Your task to perform on an android device: open chrome and create a bookmark for the current page Image 0: 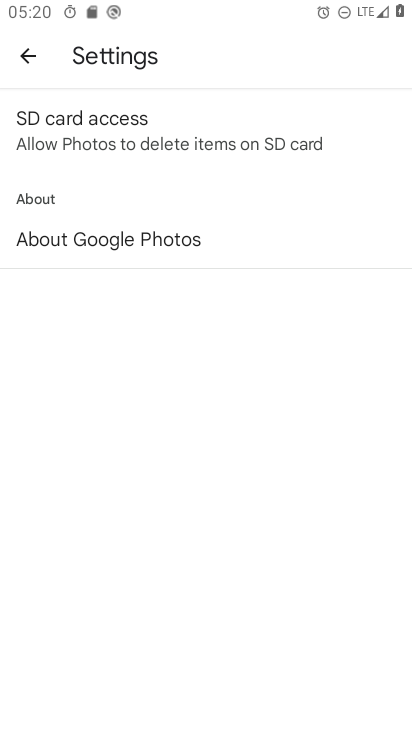
Step 0: press home button
Your task to perform on an android device: open chrome and create a bookmark for the current page Image 1: 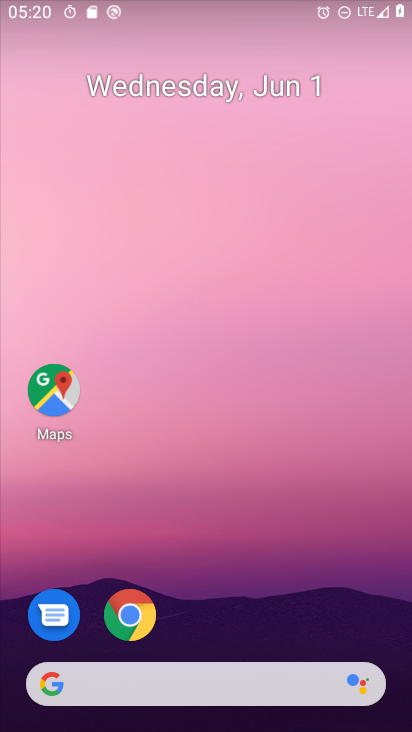
Step 1: drag from (336, 600) to (402, 432)
Your task to perform on an android device: open chrome and create a bookmark for the current page Image 2: 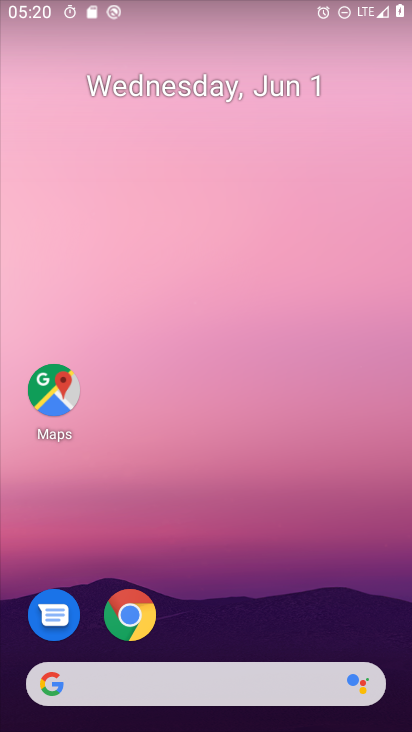
Step 2: drag from (252, 591) to (308, 6)
Your task to perform on an android device: open chrome and create a bookmark for the current page Image 3: 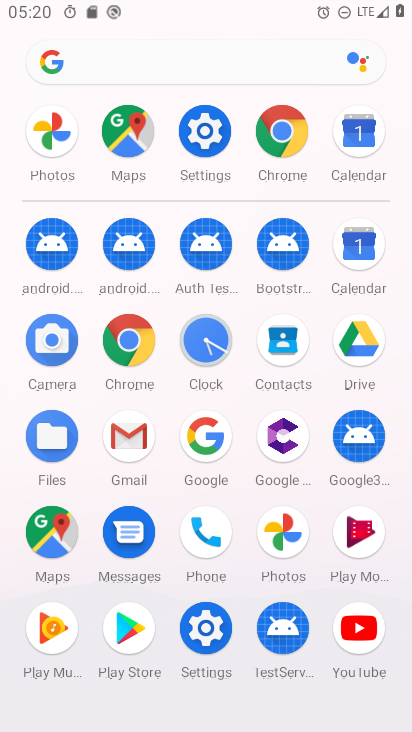
Step 3: click (130, 349)
Your task to perform on an android device: open chrome and create a bookmark for the current page Image 4: 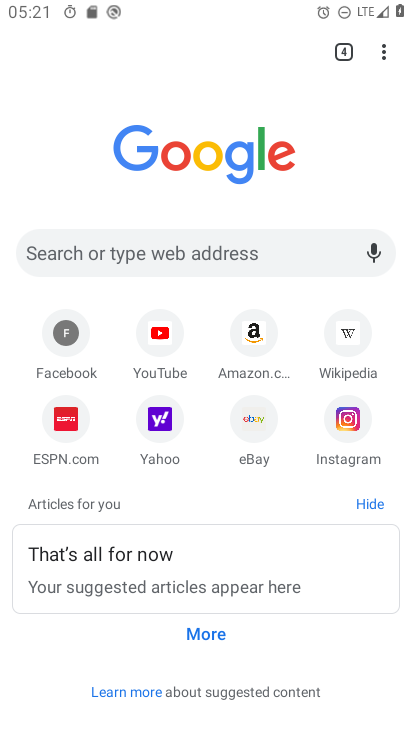
Step 4: task complete